Your task to perform on an android device: Turn on the flashlight Image 0: 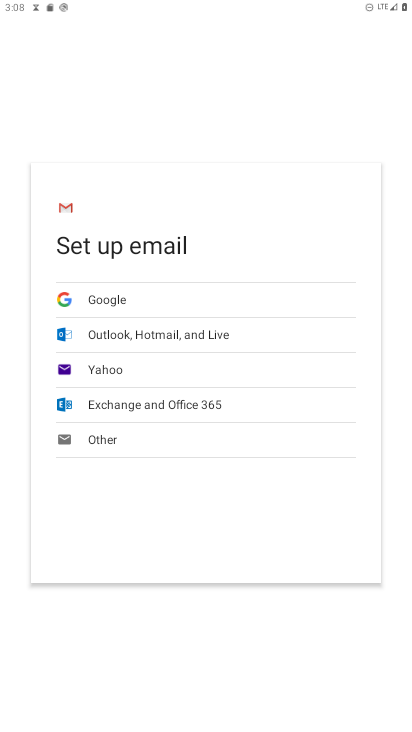
Step 0: press home button
Your task to perform on an android device: Turn on the flashlight Image 1: 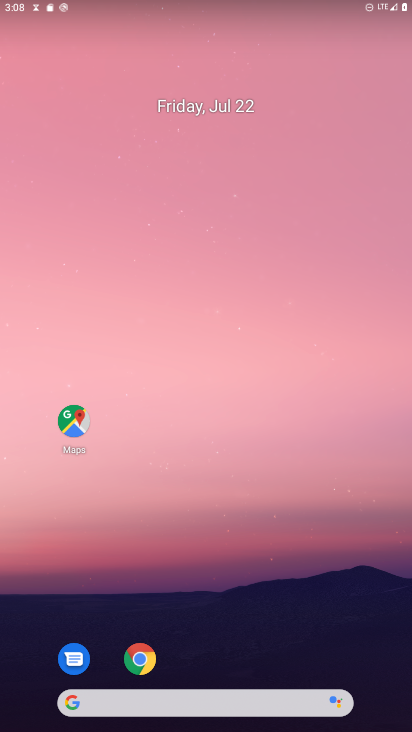
Step 1: drag from (343, 614) to (364, 47)
Your task to perform on an android device: Turn on the flashlight Image 2: 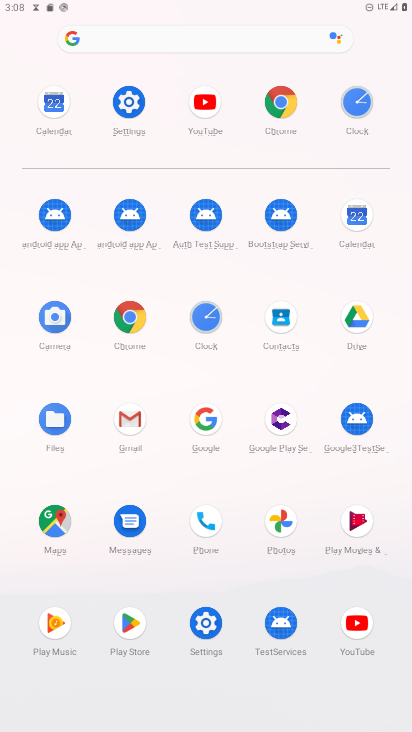
Step 2: click (140, 98)
Your task to perform on an android device: Turn on the flashlight Image 3: 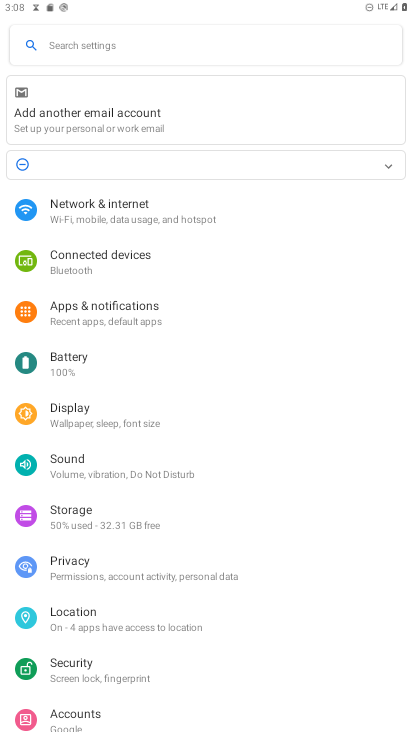
Step 3: task complete